Your task to perform on an android device: show emergency info Image 0: 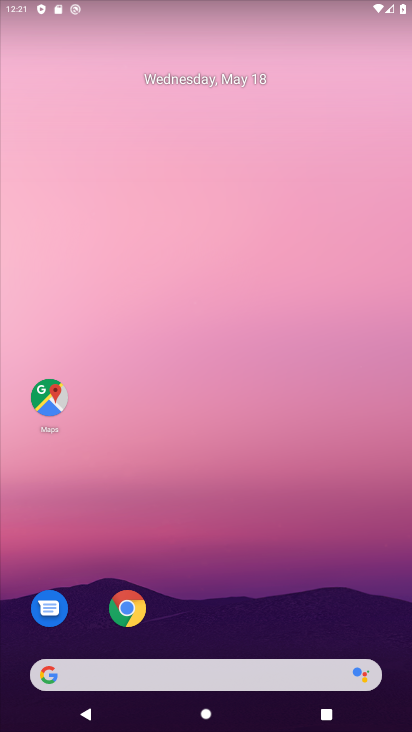
Step 0: drag from (234, 563) to (309, 122)
Your task to perform on an android device: show emergency info Image 1: 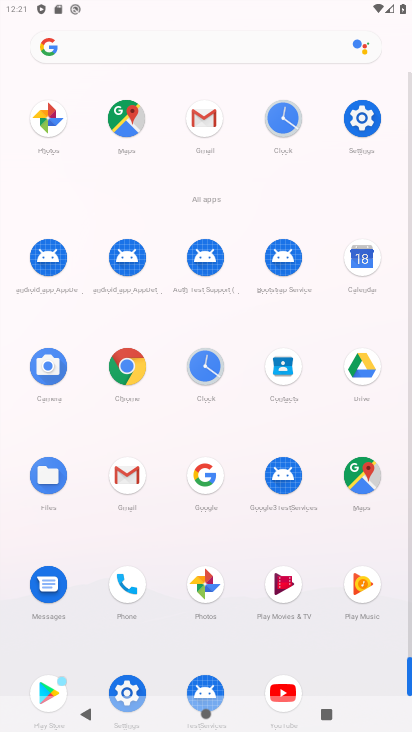
Step 1: drag from (168, 587) to (223, 311)
Your task to perform on an android device: show emergency info Image 2: 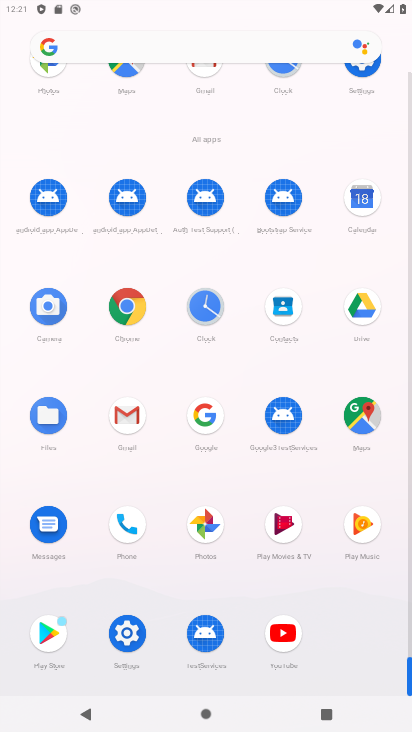
Step 2: click (127, 643)
Your task to perform on an android device: show emergency info Image 3: 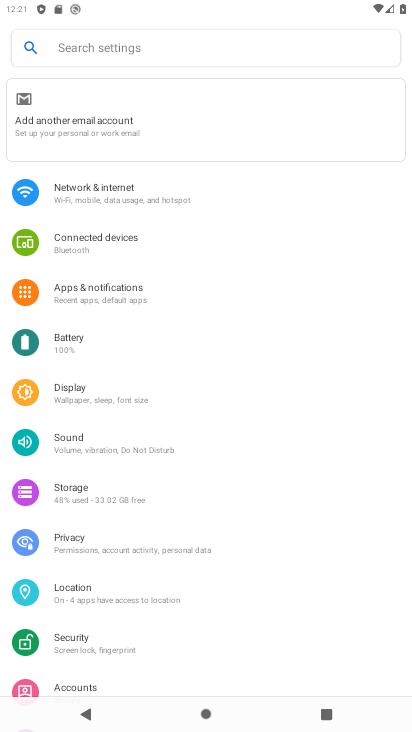
Step 3: drag from (157, 613) to (234, 139)
Your task to perform on an android device: show emergency info Image 4: 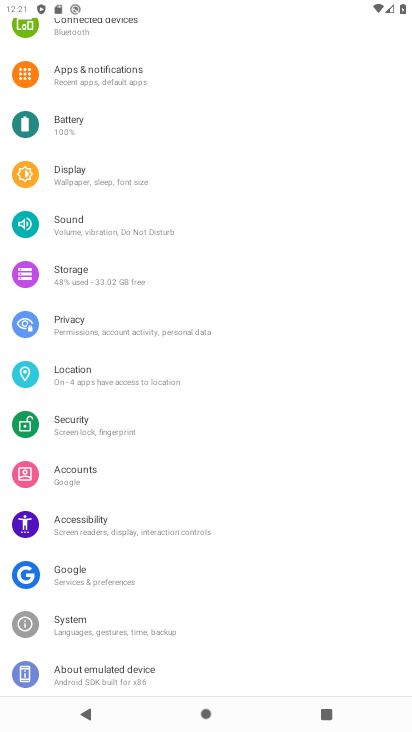
Step 4: click (181, 681)
Your task to perform on an android device: show emergency info Image 5: 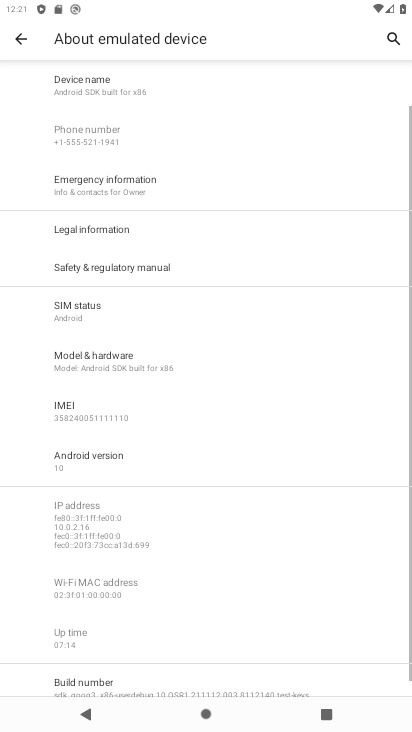
Step 5: click (183, 176)
Your task to perform on an android device: show emergency info Image 6: 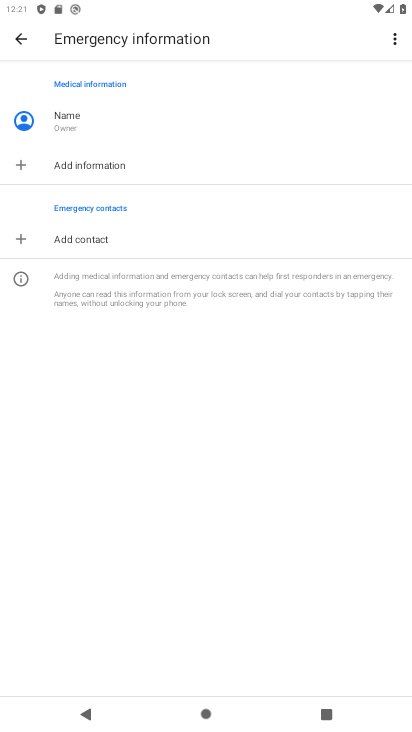
Step 6: task complete